Your task to perform on an android device: Go to eBay Image 0: 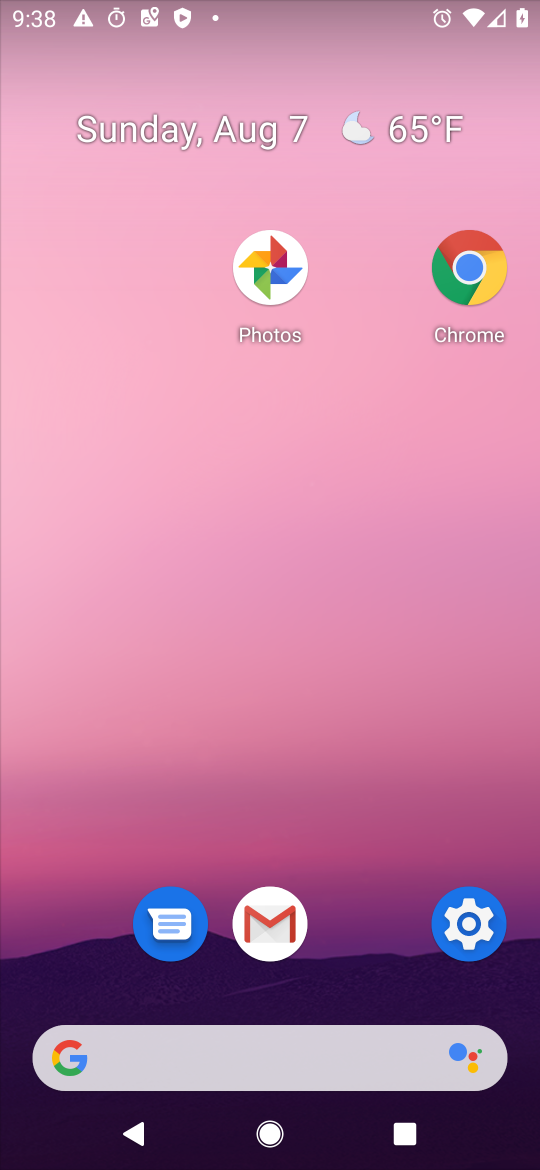
Step 0: drag from (359, 1024) to (351, 369)
Your task to perform on an android device: Go to eBay Image 1: 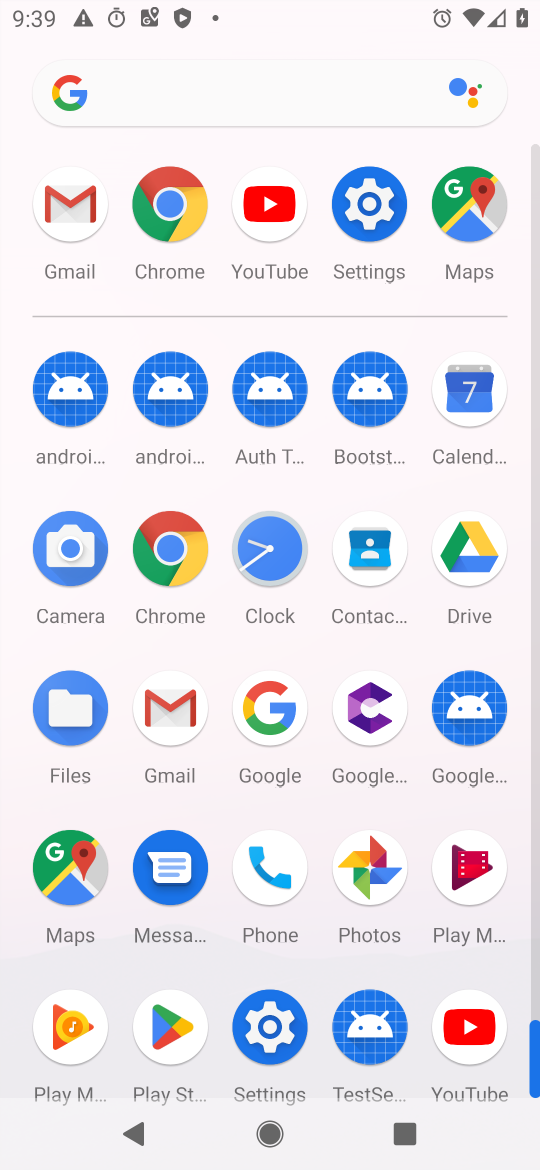
Step 1: click (162, 215)
Your task to perform on an android device: Go to eBay Image 2: 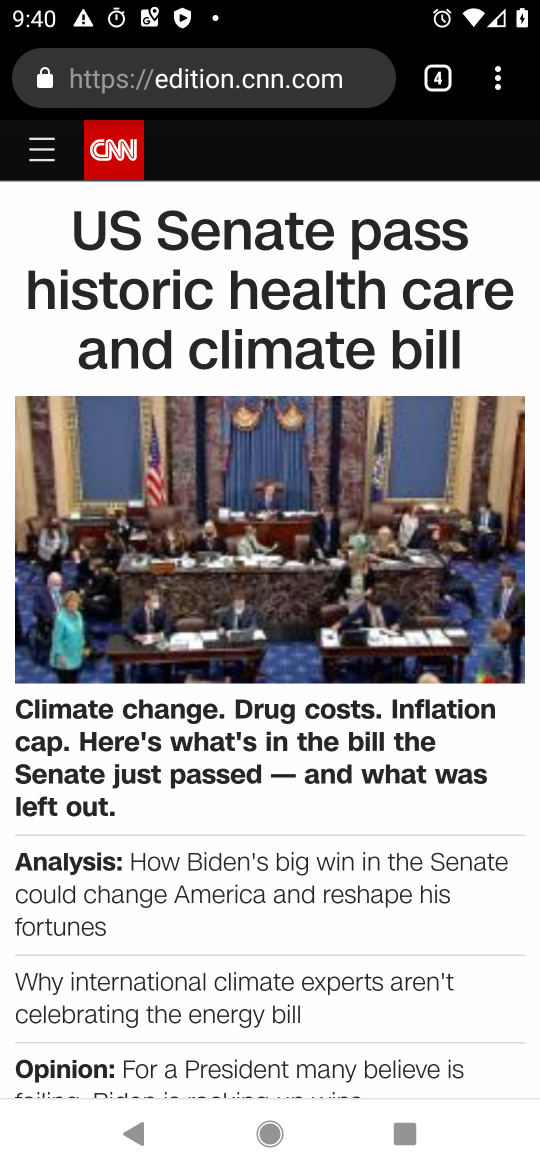
Step 2: click (208, 53)
Your task to perform on an android device: Go to eBay Image 3: 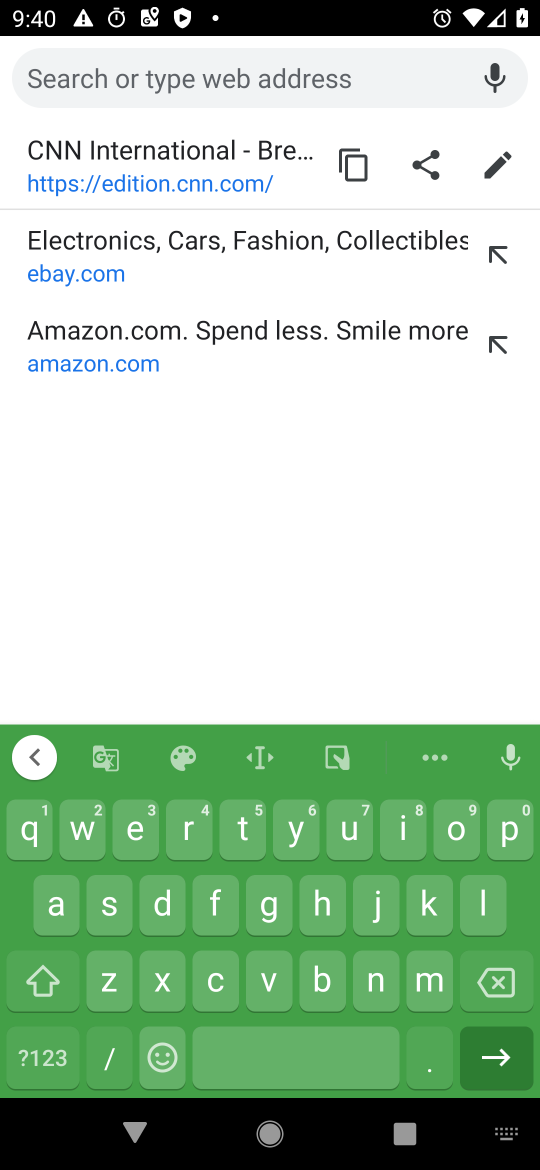
Step 3: click (130, 841)
Your task to perform on an android device: Go to eBay Image 4: 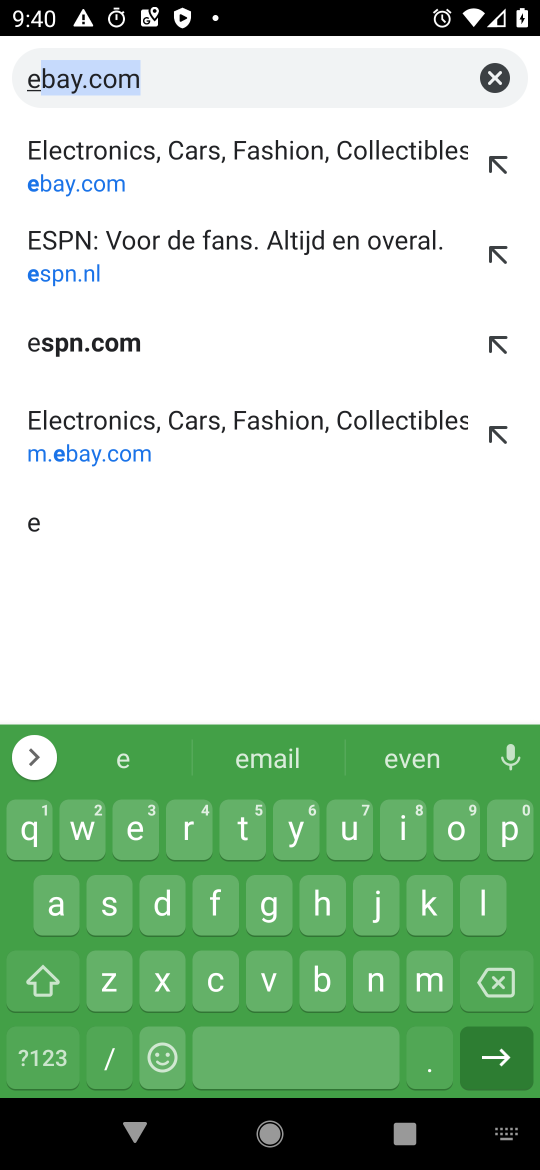
Step 4: click (253, 77)
Your task to perform on an android device: Go to eBay Image 5: 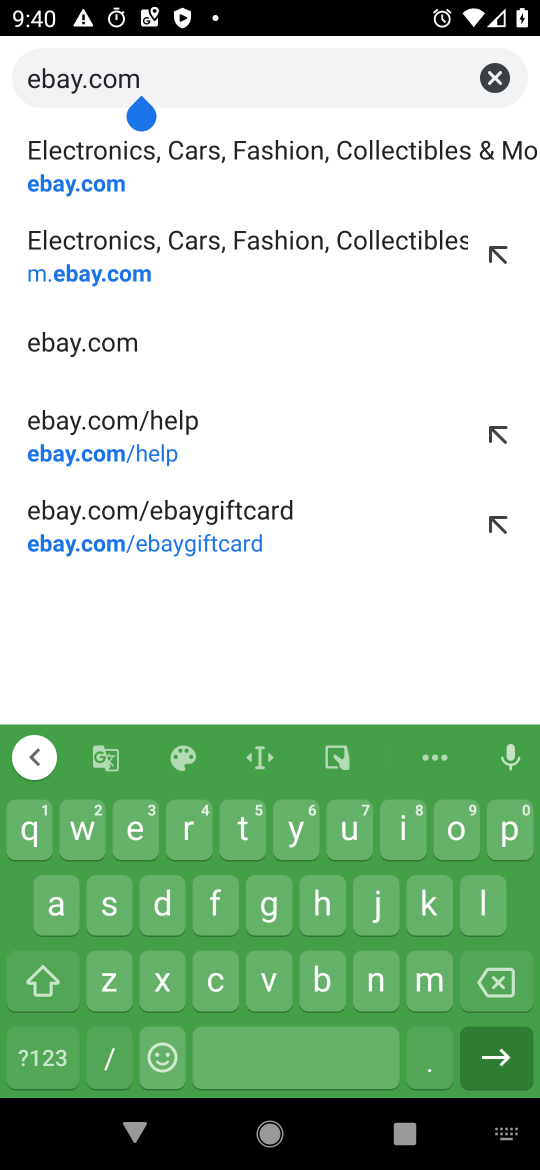
Step 5: click (498, 1054)
Your task to perform on an android device: Go to eBay Image 6: 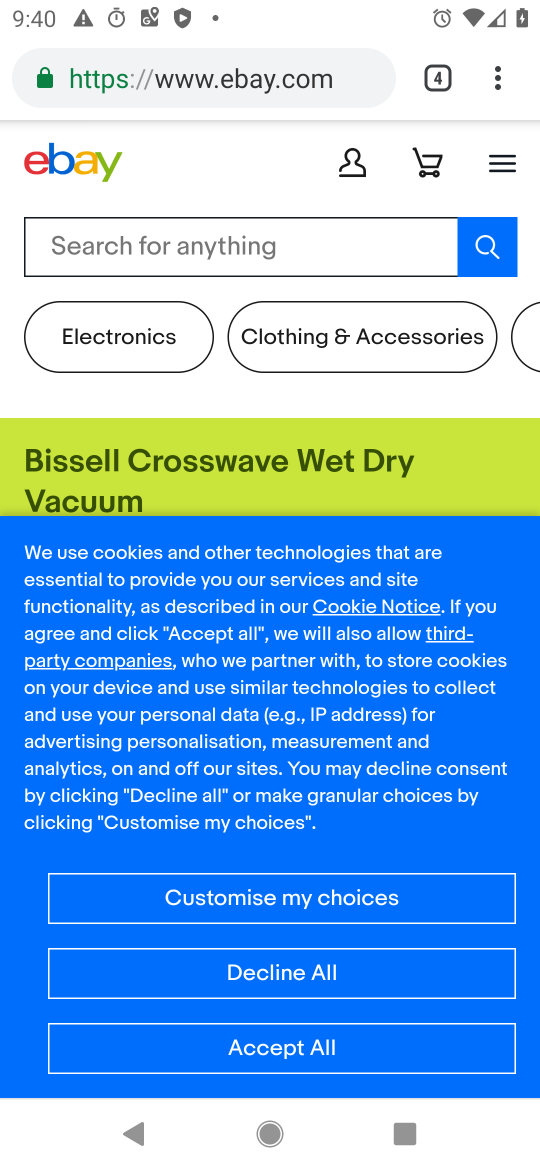
Step 6: task complete